Your task to perform on an android device: set default search engine in the chrome app Image 0: 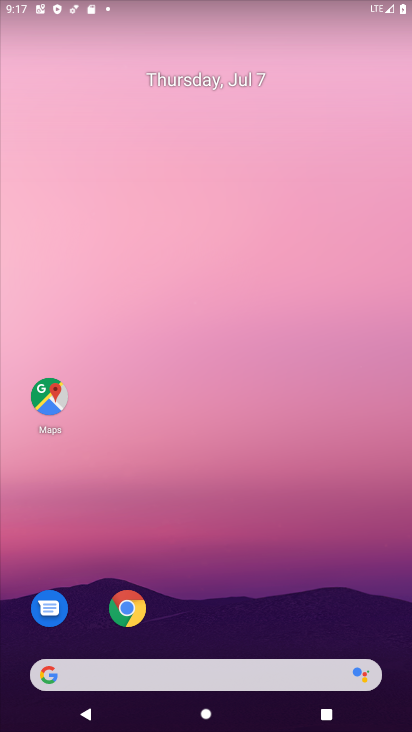
Step 0: drag from (256, 606) to (288, 148)
Your task to perform on an android device: set default search engine in the chrome app Image 1: 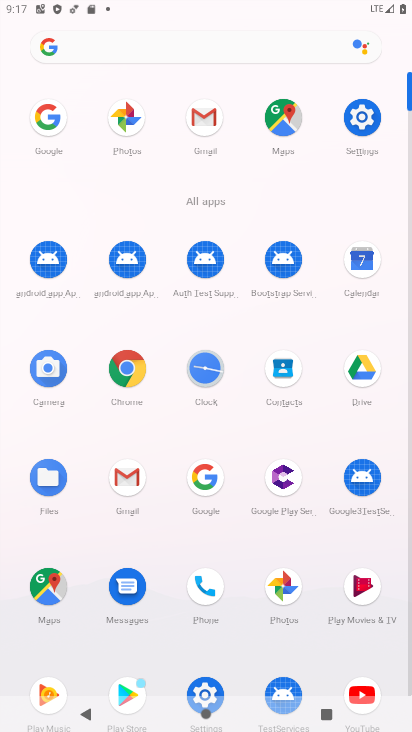
Step 1: click (125, 369)
Your task to perform on an android device: set default search engine in the chrome app Image 2: 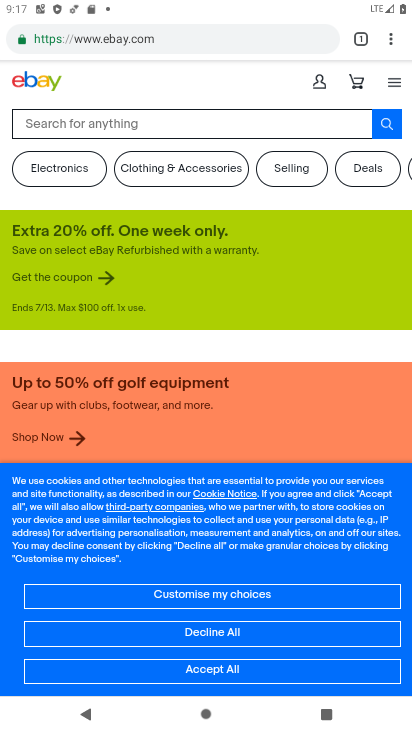
Step 2: click (387, 42)
Your task to perform on an android device: set default search engine in the chrome app Image 3: 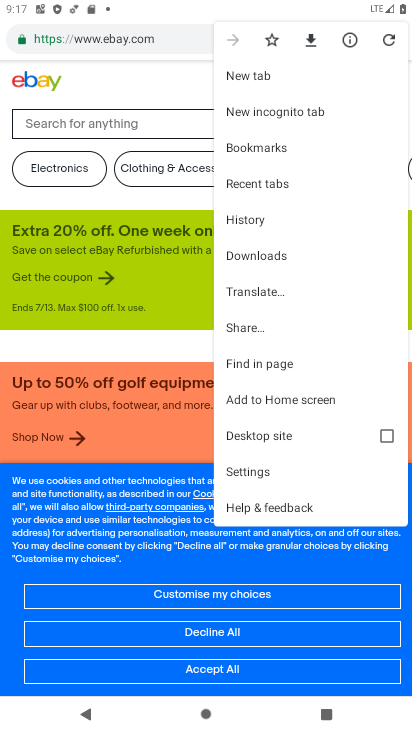
Step 3: click (267, 478)
Your task to perform on an android device: set default search engine in the chrome app Image 4: 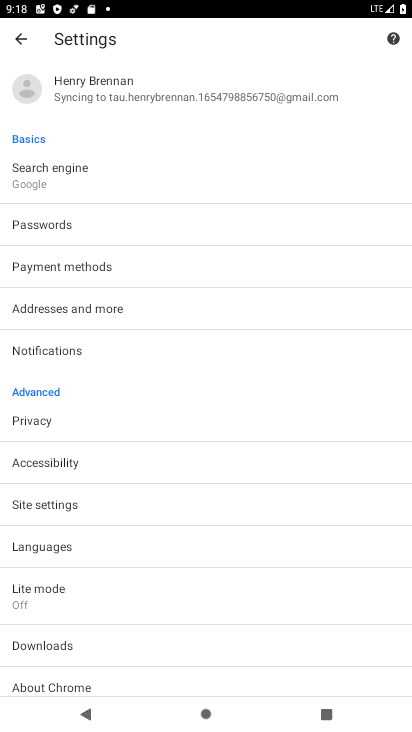
Step 4: click (60, 174)
Your task to perform on an android device: set default search engine in the chrome app Image 5: 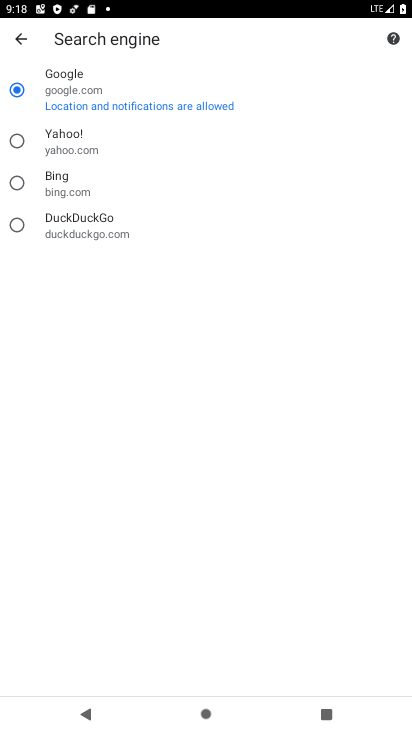
Step 5: task complete